Your task to perform on an android device: What is the news today? Image 0: 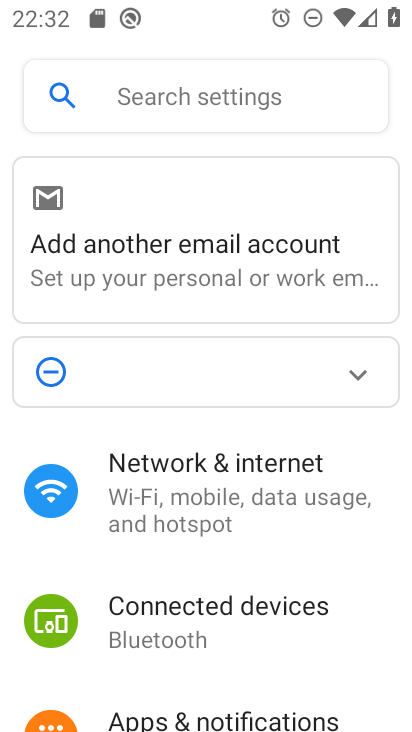
Step 0: drag from (192, 610) to (228, 337)
Your task to perform on an android device: What is the news today? Image 1: 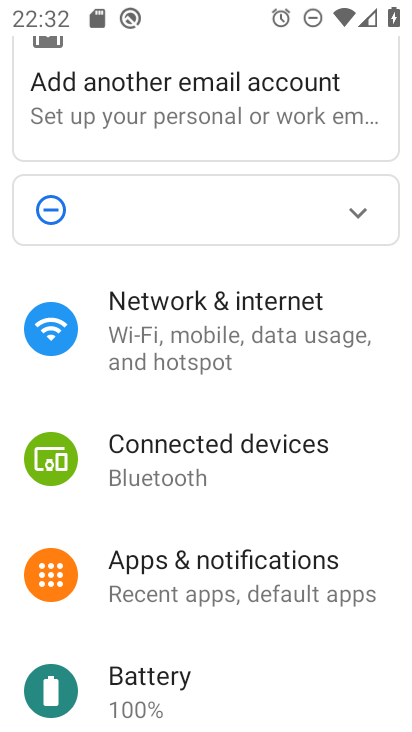
Step 1: press home button
Your task to perform on an android device: What is the news today? Image 2: 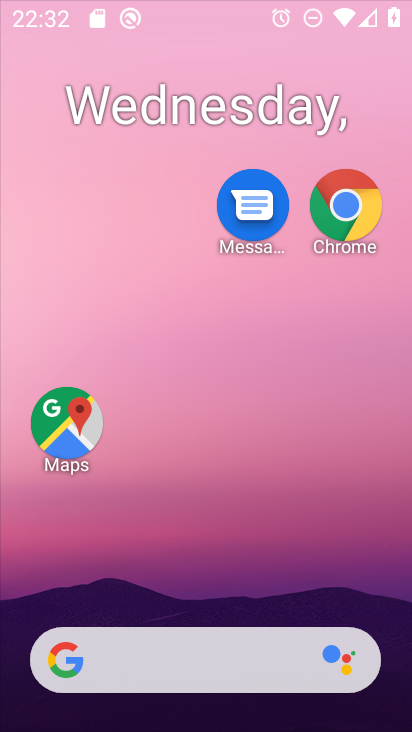
Step 2: drag from (211, 638) to (216, 193)
Your task to perform on an android device: What is the news today? Image 3: 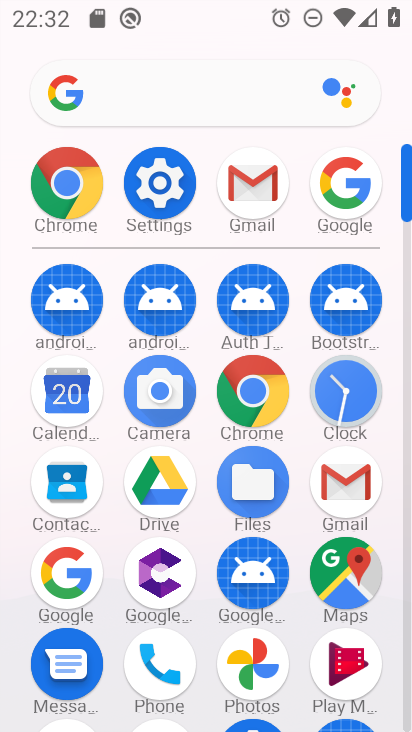
Step 3: click (246, 380)
Your task to perform on an android device: What is the news today? Image 4: 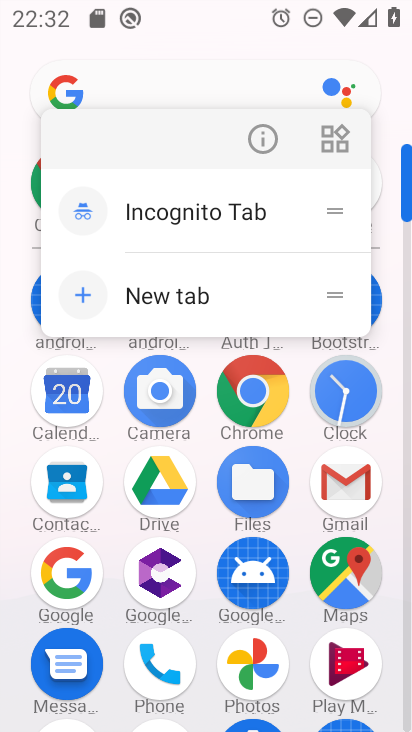
Step 4: click (273, 142)
Your task to perform on an android device: What is the news today? Image 5: 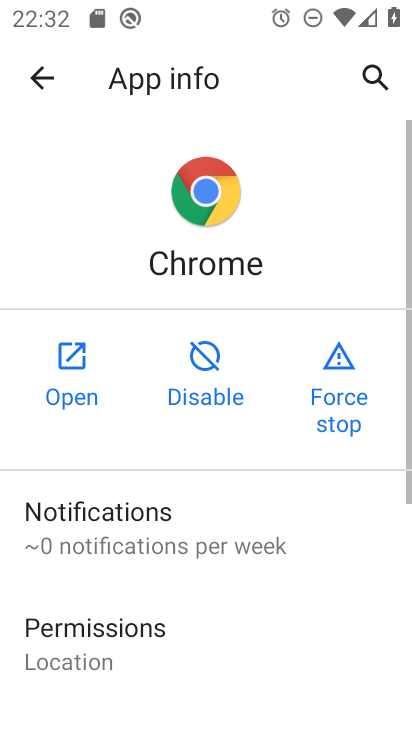
Step 5: click (77, 396)
Your task to perform on an android device: What is the news today? Image 6: 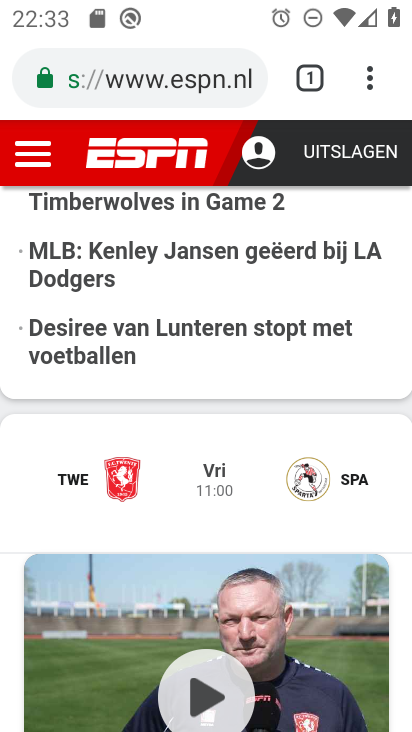
Step 6: drag from (228, 532) to (263, 41)
Your task to perform on an android device: What is the news today? Image 7: 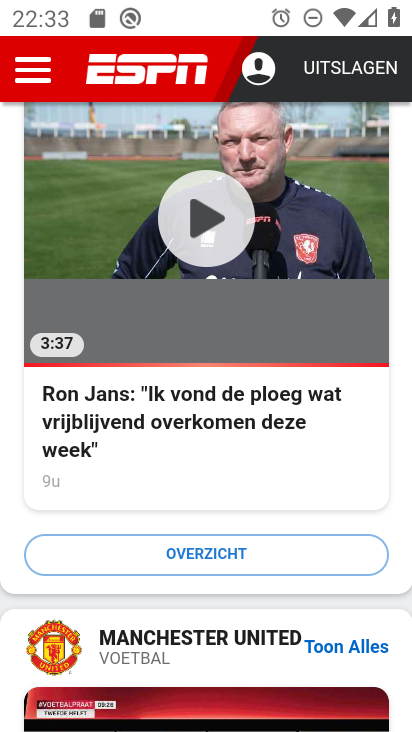
Step 7: drag from (283, 573) to (292, 132)
Your task to perform on an android device: What is the news today? Image 8: 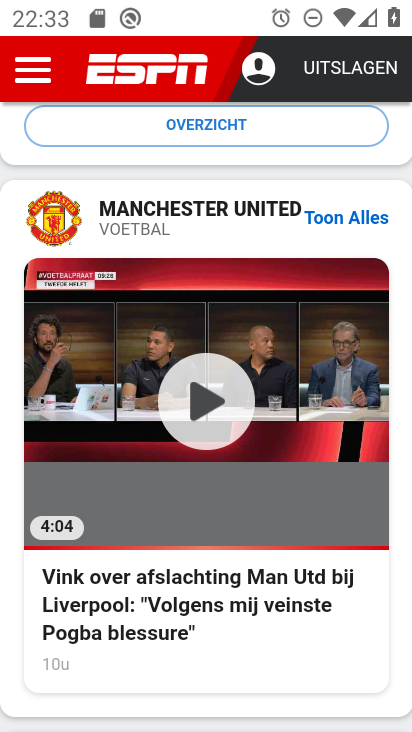
Step 8: drag from (280, 597) to (270, 257)
Your task to perform on an android device: What is the news today? Image 9: 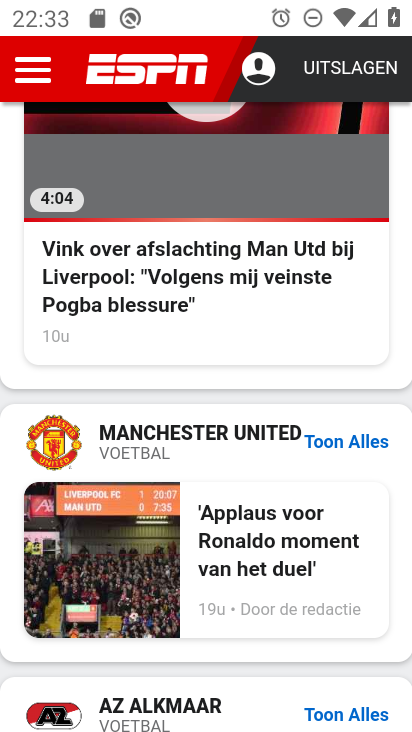
Step 9: drag from (236, 60) to (269, 480)
Your task to perform on an android device: What is the news today? Image 10: 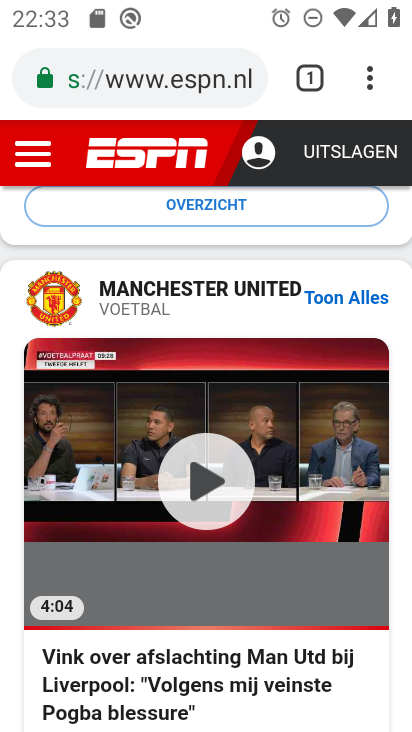
Step 10: click (149, 62)
Your task to perform on an android device: What is the news today? Image 11: 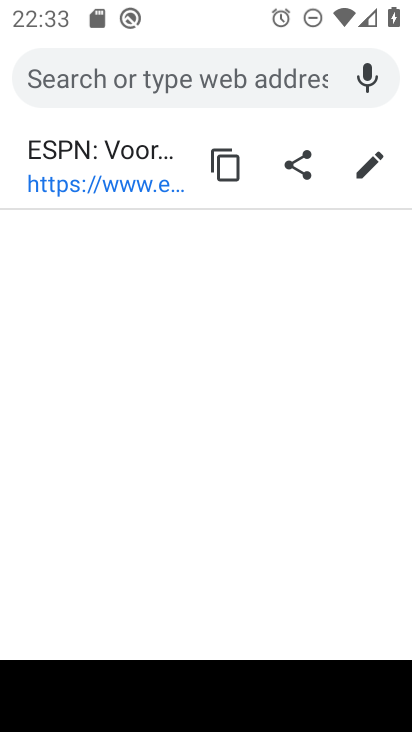
Step 11: type "news today"
Your task to perform on an android device: What is the news today? Image 12: 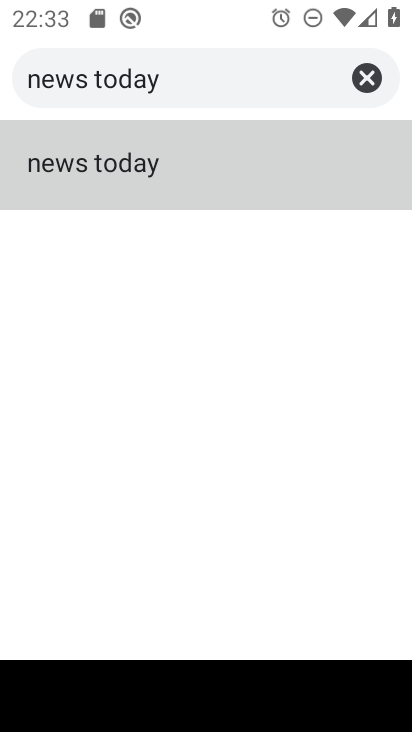
Step 12: click (94, 170)
Your task to perform on an android device: What is the news today? Image 13: 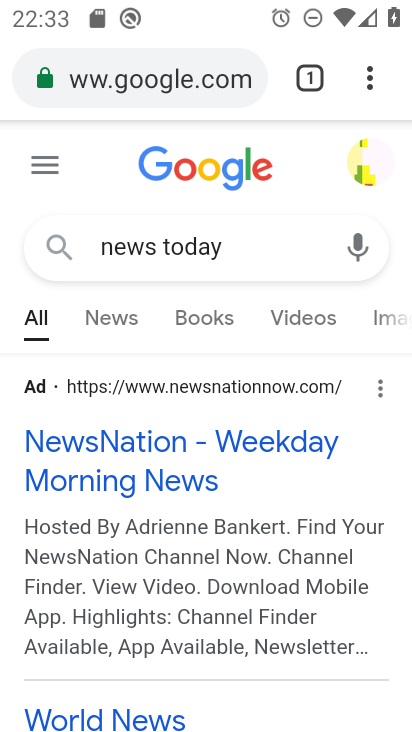
Step 13: drag from (217, 547) to (249, 398)
Your task to perform on an android device: What is the news today? Image 14: 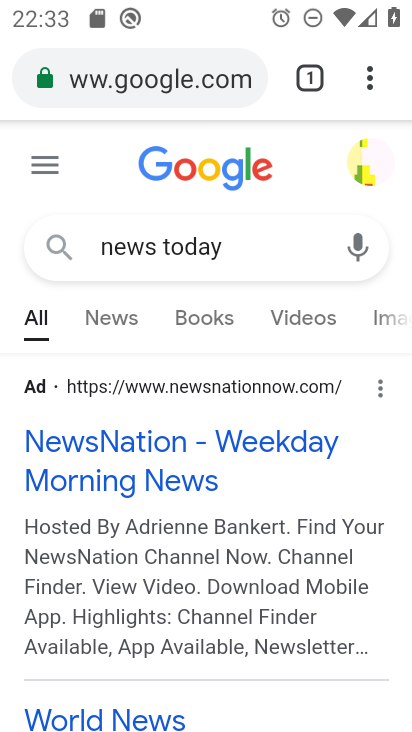
Step 14: click (140, 465)
Your task to perform on an android device: What is the news today? Image 15: 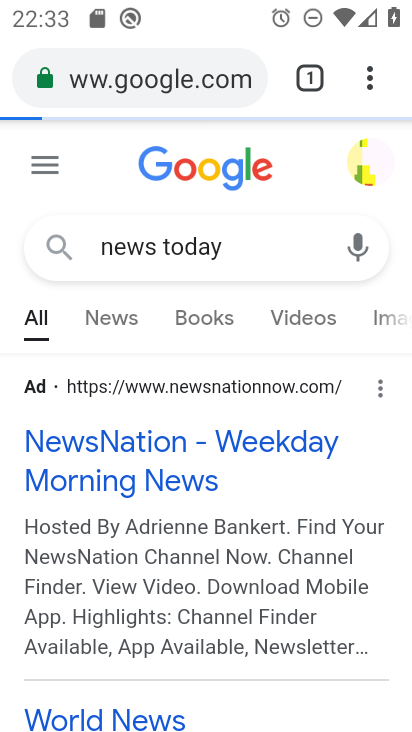
Step 15: task complete